Your task to perform on an android device: delete location history Image 0: 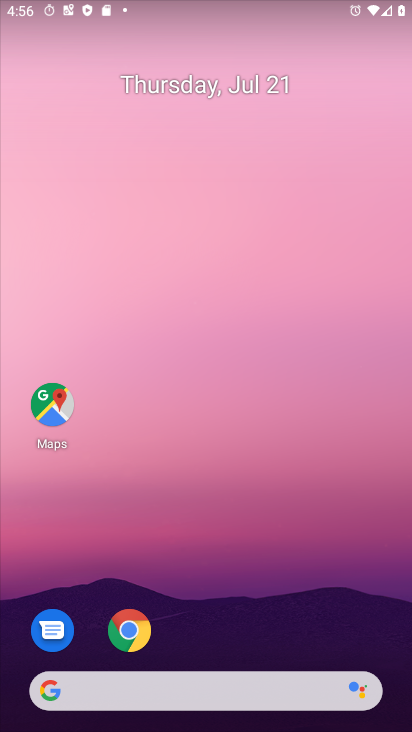
Step 0: drag from (210, 703) to (271, 281)
Your task to perform on an android device: delete location history Image 1: 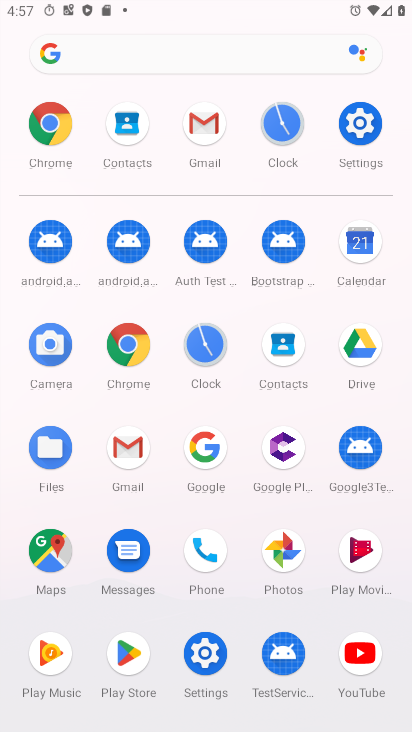
Step 1: click (53, 551)
Your task to perform on an android device: delete location history Image 2: 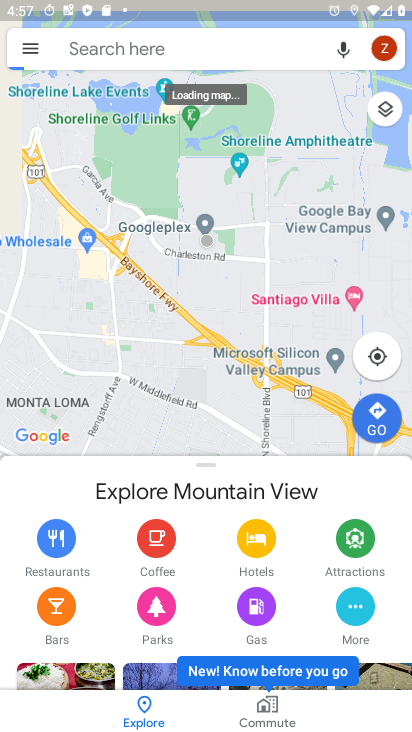
Step 2: click (29, 49)
Your task to perform on an android device: delete location history Image 3: 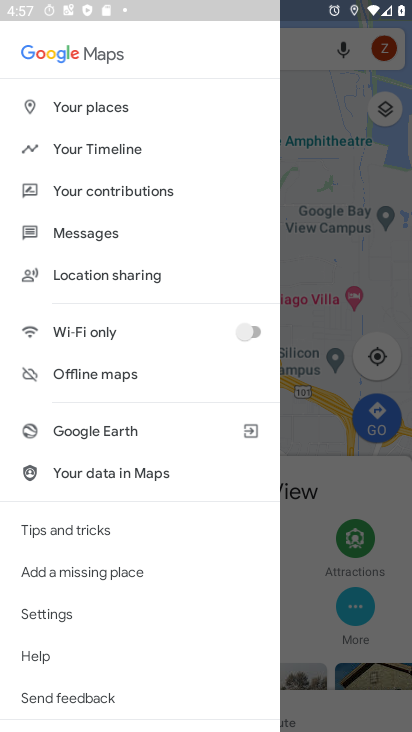
Step 3: click (59, 613)
Your task to perform on an android device: delete location history Image 4: 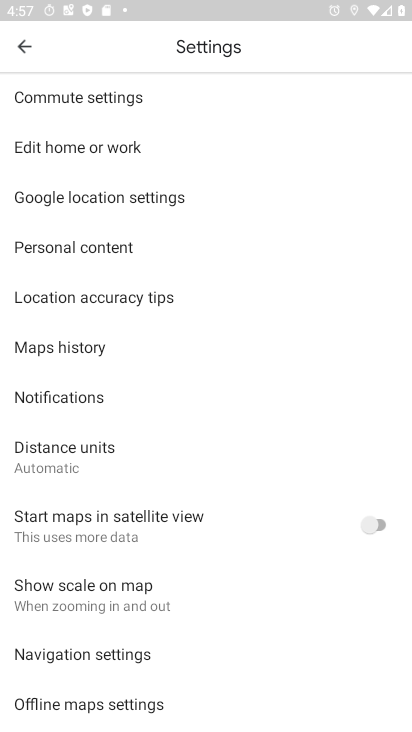
Step 4: click (113, 247)
Your task to perform on an android device: delete location history Image 5: 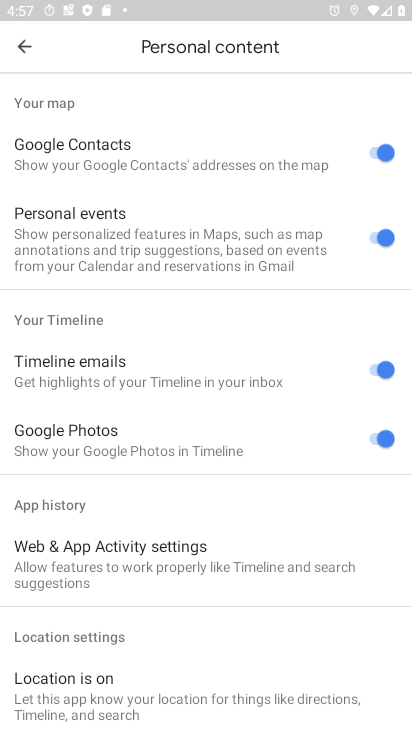
Step 5: drag from (144, 623) to (170, 478)
Your task to perform on an android device: delete location history Image 6: 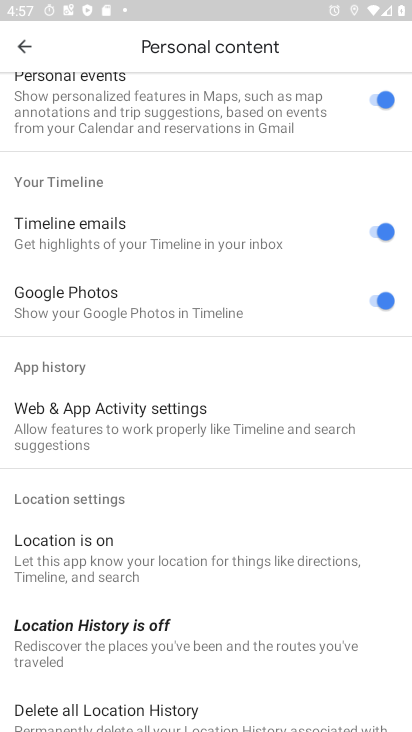
Step 6: drag from (145, 672) to (240, 527)
Your task to perform on an android device: delete location history Image 7: 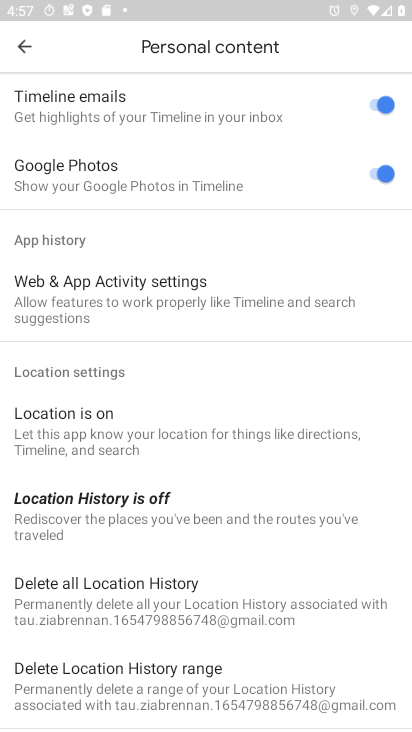
Step 7: click (129, 585)
Your task to perform on an android device: delete location history Image 8: 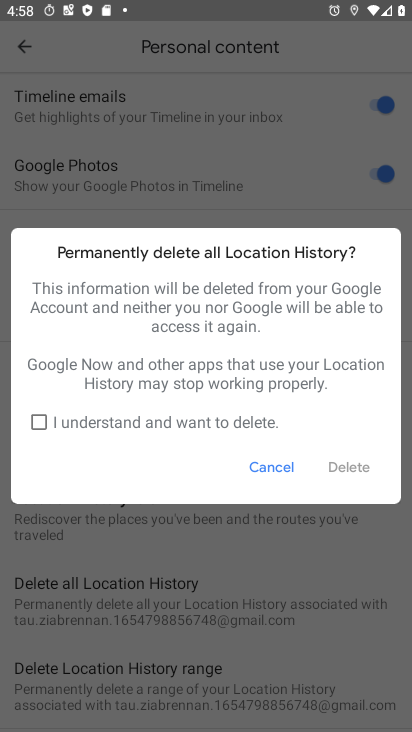
Step 8: click (45, 414)
Your task to perform on an android device: delete location history Image 9: 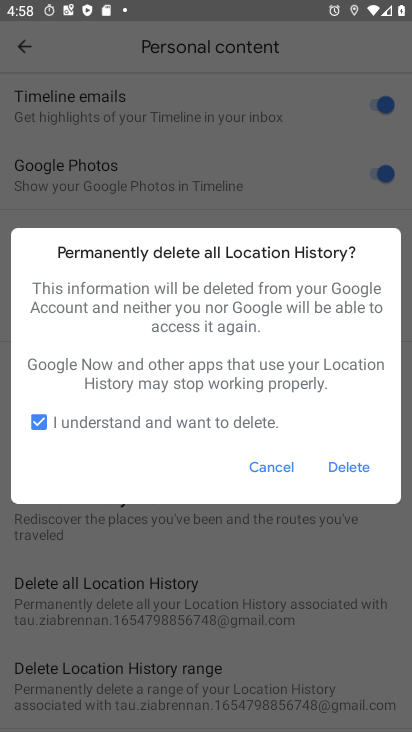
Step 9: click (345, 466)
Your task to perform on an android device: delete location history Image 10: 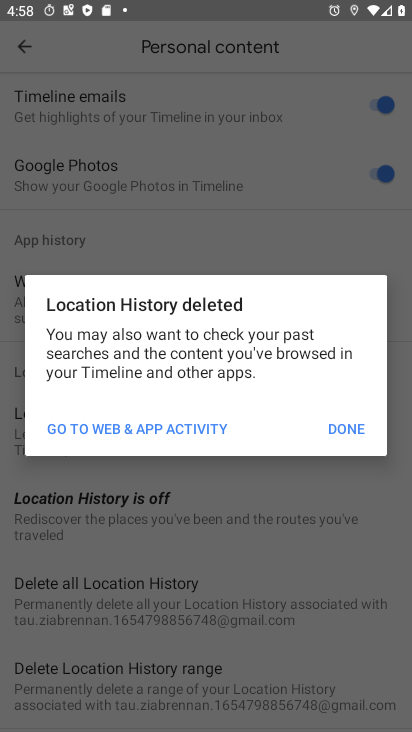
Step 10: click (362, 431)
Your task to perform on an android device: delete location history Image 11: 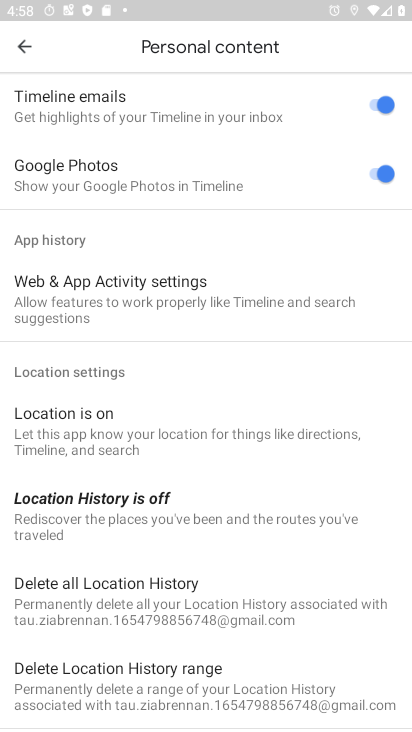
Step 11: task complete